Your task to perform on an android device: Check the news Image 0: 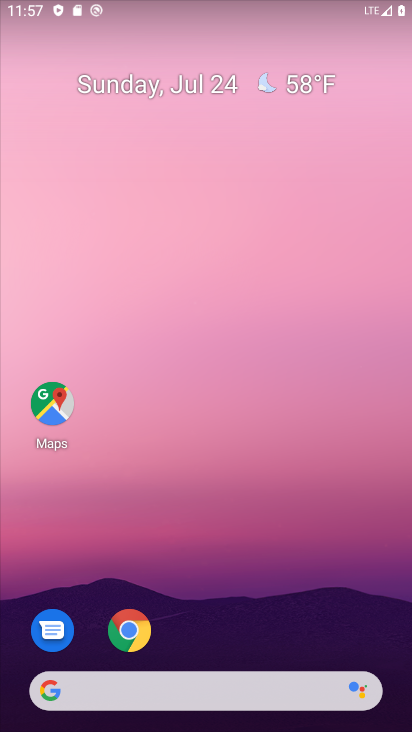
Step 0: click (140, 637)
Your task to perform on an android device: Check the news Image 1: 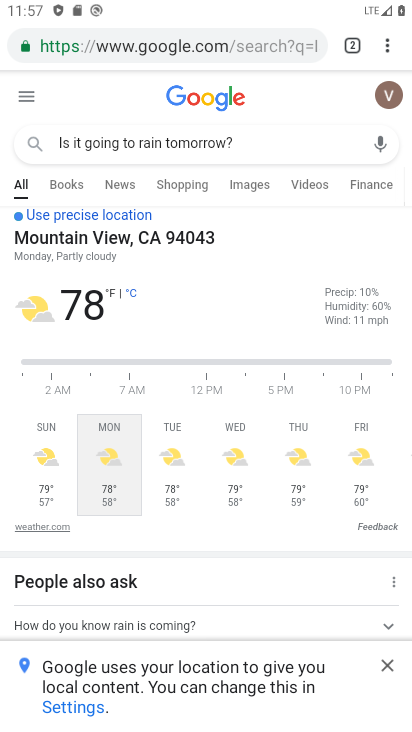
Step 1: click (201, 58)
Your task to perform on an android device: Check the news Image 2: 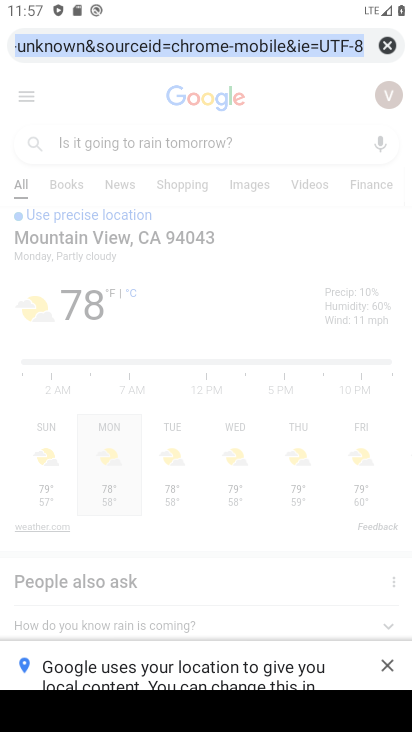
Step 2: type "news"
Your task to perform on an android device: Check the news Image 3: 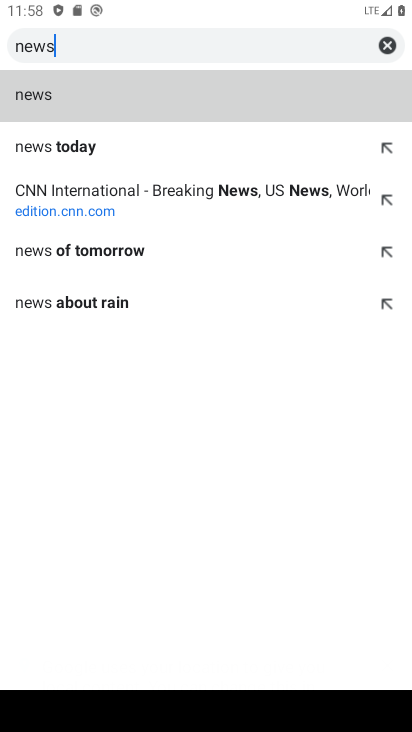
Step 3: click (98, 108)
Your task to perform on an android device: Check the news Image 4: 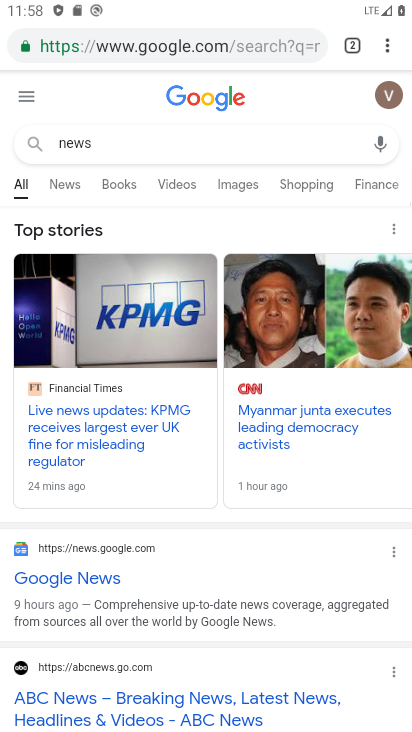
Step 4: task complete